Your task to perform on an android device: Open the calculator app Image 0: 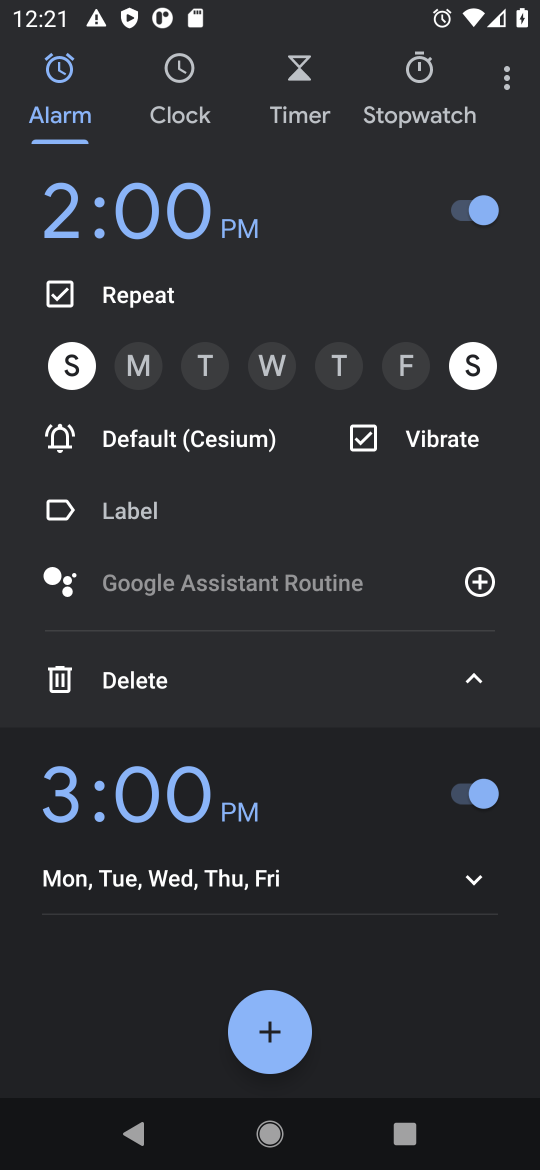
Step 0: press home button
Your task to perform on an android device: Open the calculator app Image 1: 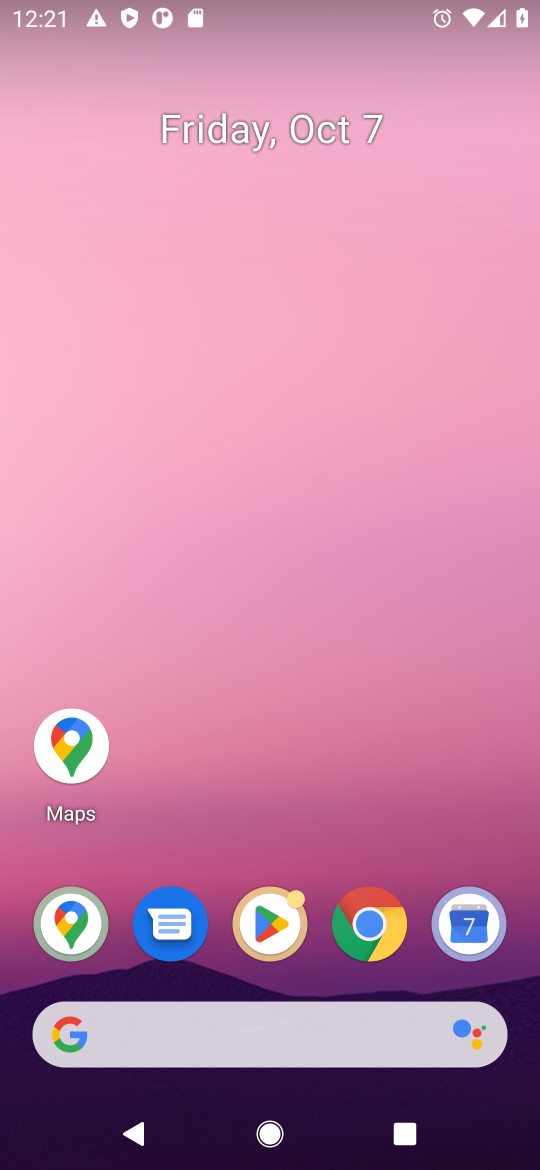
Step 1: task complete